Your task to perform on an android device: allow cookies in the chrome app Image 0: 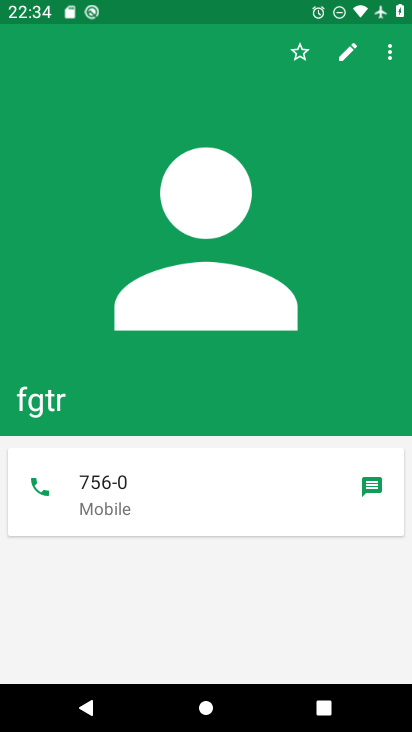
Step 0: press home button
Your task to perform on an android device: allow cookies in the chrome app Image 1: 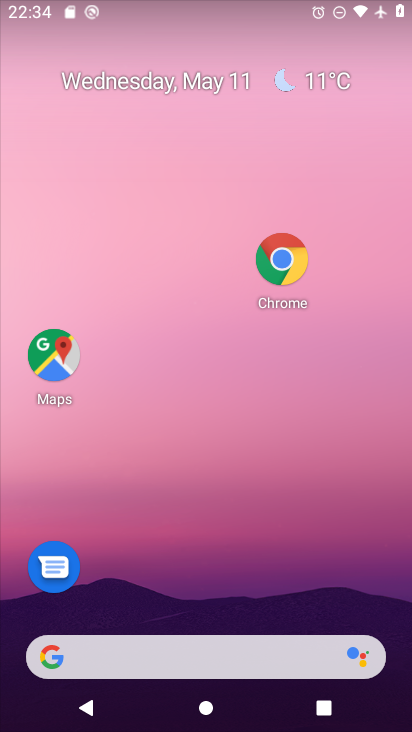
Step 1: click (279, 282)
Your task to perform on an android device: allow cookies in the chrome app Image 2: 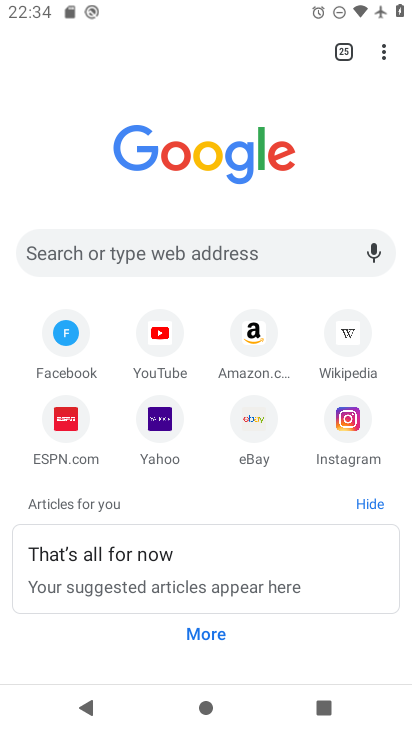
Step 2: drag from (384, 57) to (205, 428)
Your task to perform on an android device: allow cookies in the chrome app Image 3: 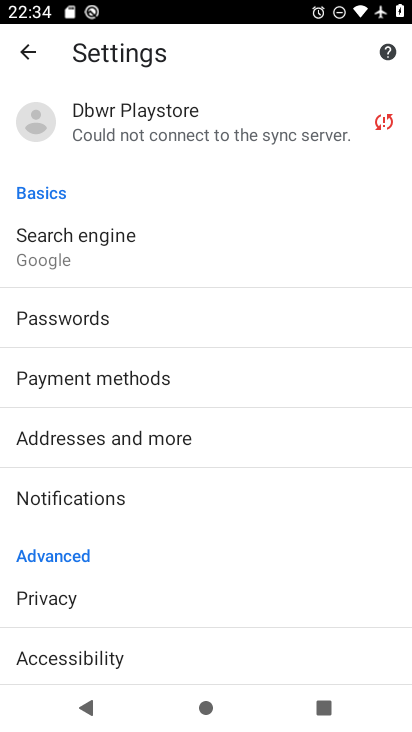
Step 3: drag from (177, 565) to (332, 176)
Your task to perform on an android device: allow cookies in the chrome app Image 4: 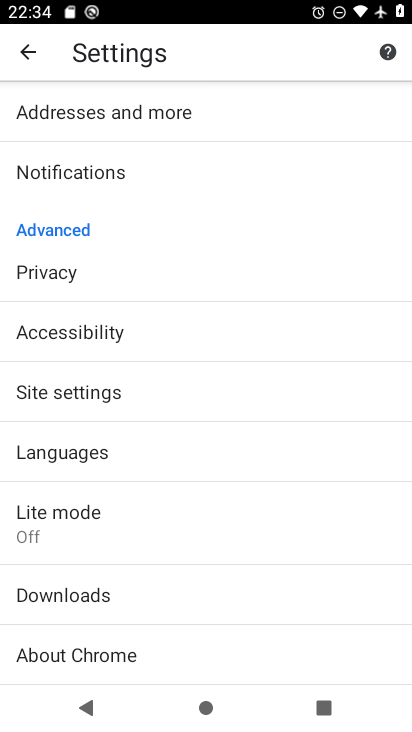
Step 4: click (66, 399)
Your task to perform on an android device: allow cookies in the chrome app Image 5: 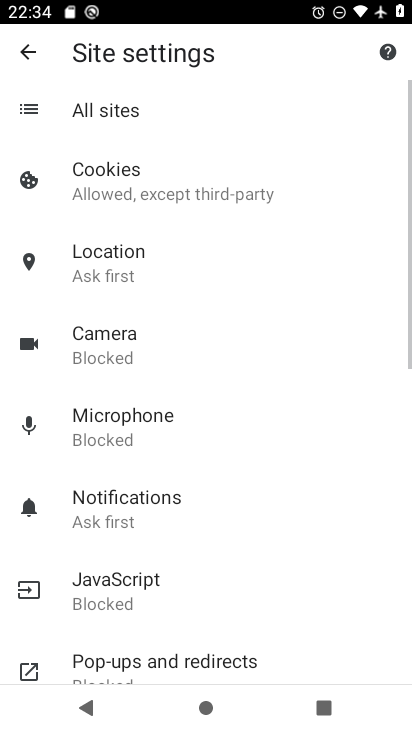
Step 5: click (158, 197)
Your task to perform on an android device: allow cookies in the chrome app Image 6: 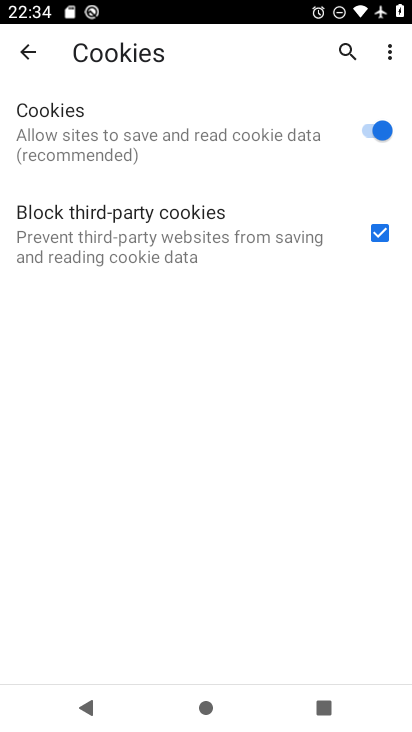
Step 6: task complete